Your task to perform on an android device: Go to settings Image 0: 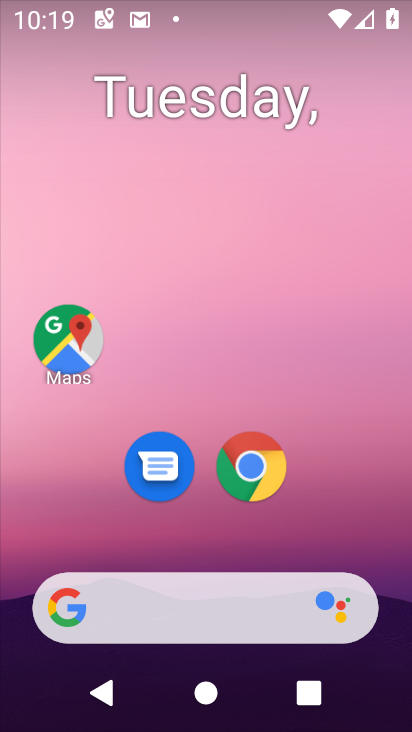
Step 0: drag from (283, 651) to (280, 256)
Your task to perform on an android device: Go to settings Image 1: 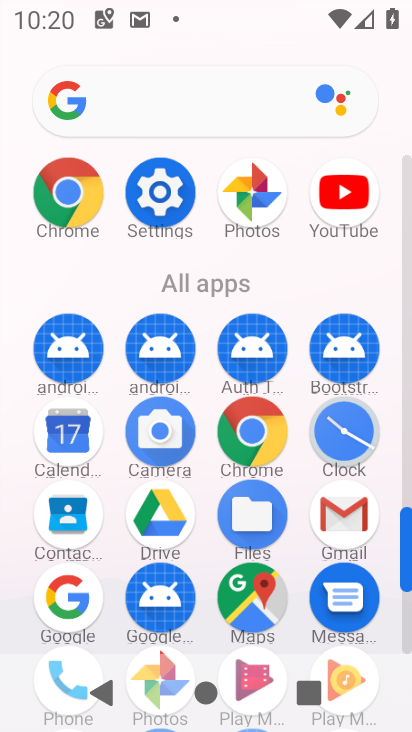
Step 1: click (159, 189)
Your task to perform on an android device: Go to settings Image 2: 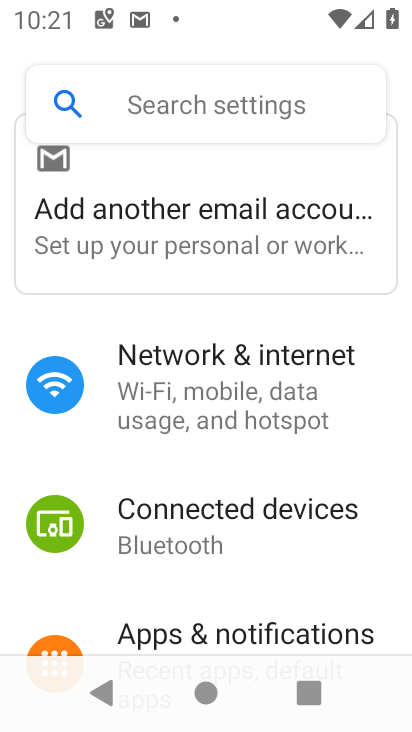
Step 2: task complete